Your task to perform on an android device: Open network settings Image 0: 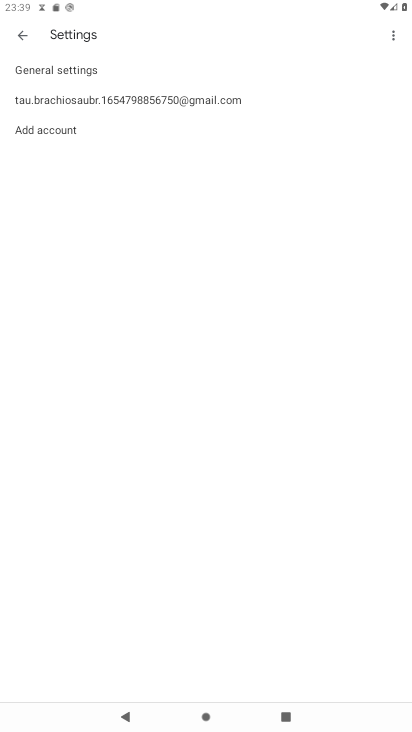
Step 0: press home button
Your task to perform on an android device: Open network settings Image 1: 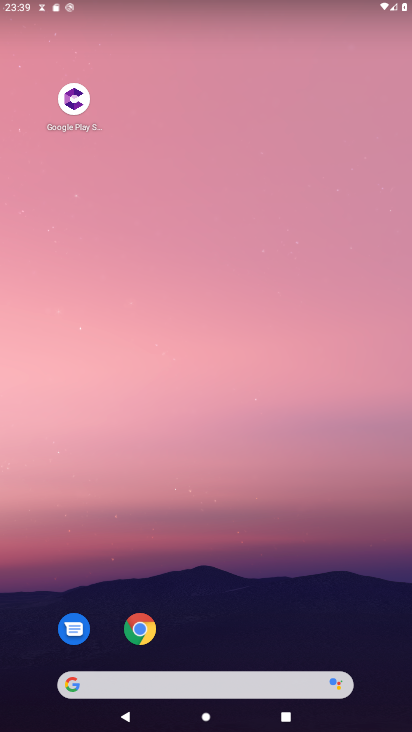
Step 1: drag from (262, 677) to (249, 146)
Your task to perform on an android device: Open network settings Image 2: 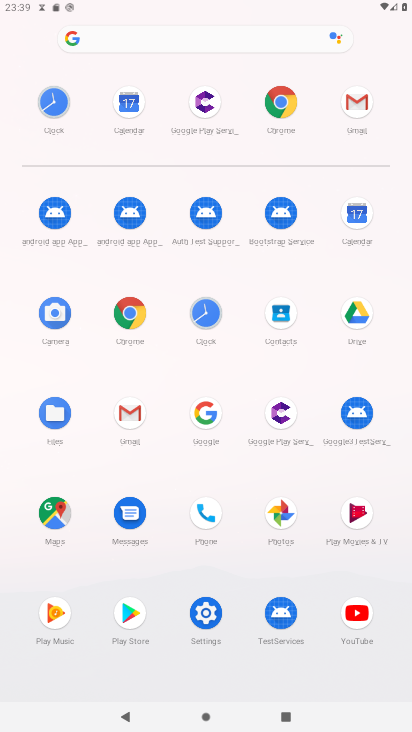
Step 2: click (204, 610)
Your task to perform on an android device: Open network settings Image 3: 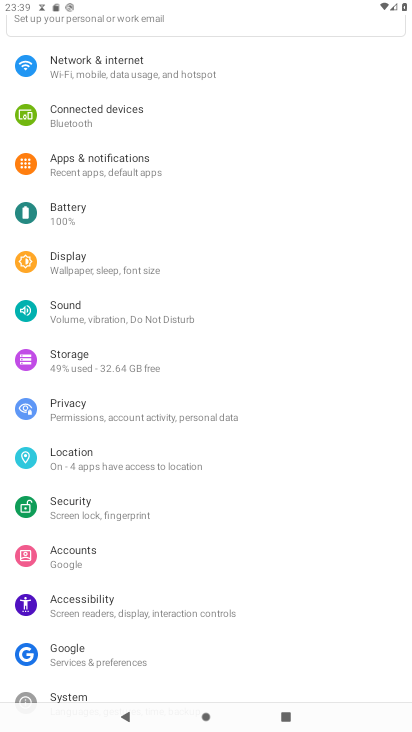
Step 3: click (141, 78)
Your task to perform on an android device: Open network settings Image 4: 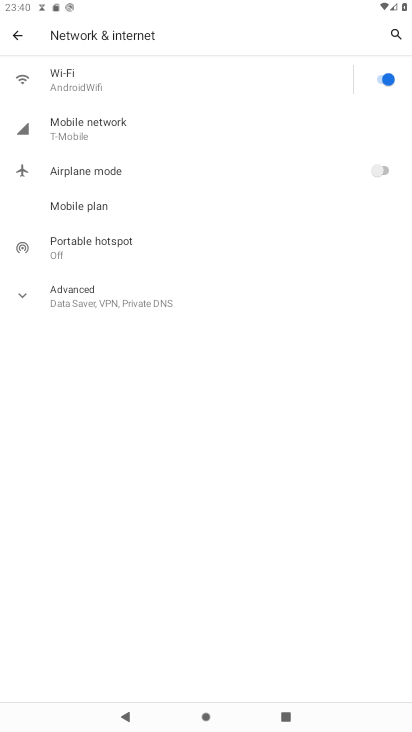
Step 4: task complete